Your task to perform on an android device: refresh tabs in the chrome app Image 0: 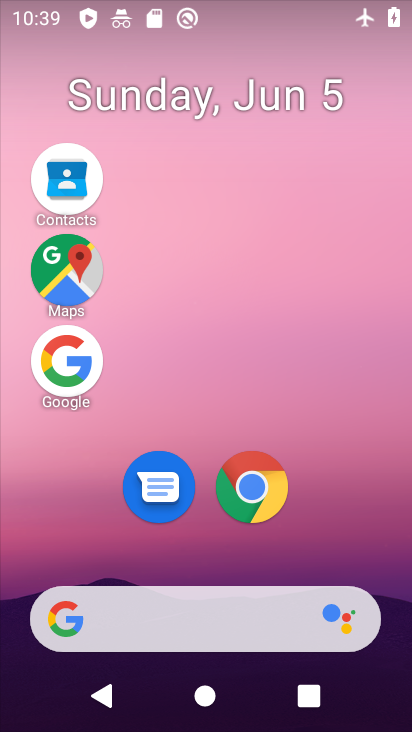
Step 0: drag from (208, 532) to (203, 7)
Your task to perform on an android device: refresh tabs in the chrome app Image 1: 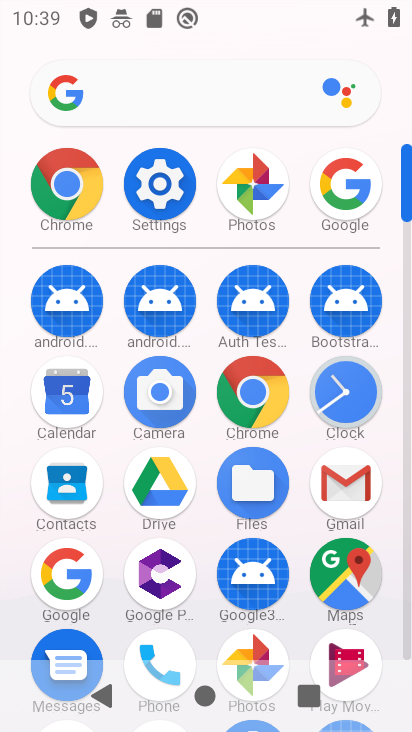
Step 1: click (56, 204)
Your task to perform on an android device: refresh tabs in the chrome app Image 2: 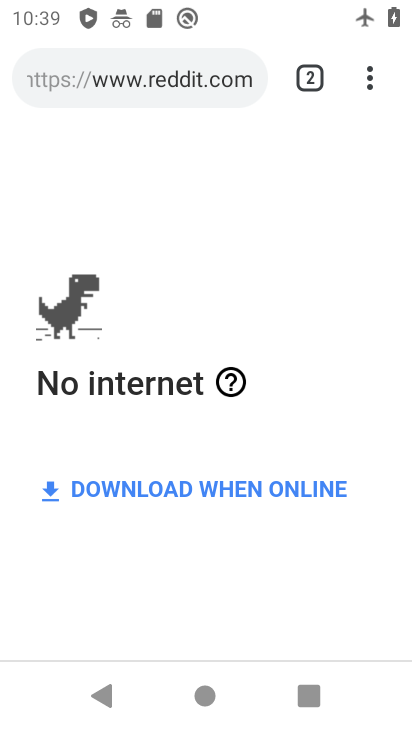
Step 2: click (370, 86)
Your task to perform on an android device: refresh tabs in the chrome app Image 3: 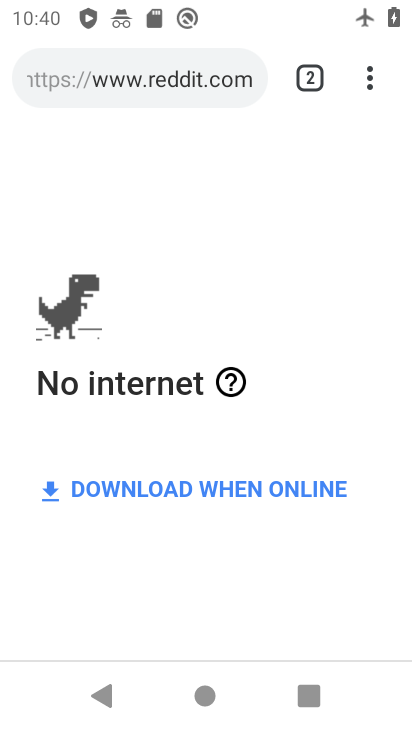
Step 3: click (367, 93)
Your task to perform on an android device: refresh tabs in the chrome app Image 4: 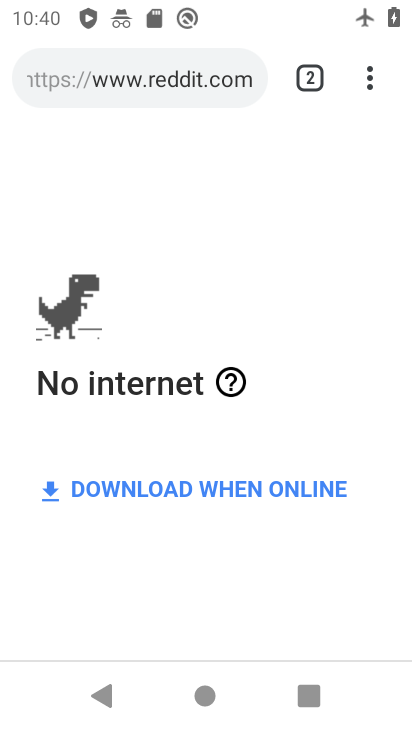
Step 4: click (376, 80)
Your task to perform on an android device: refresh tabs in the chrome app Image 5: 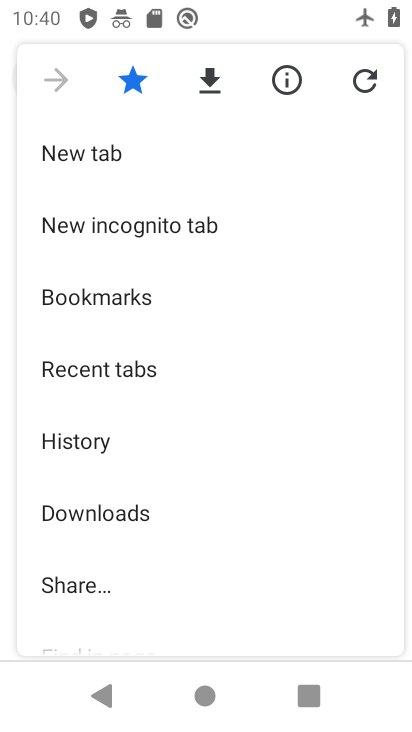
Step 5: click (372, 82)
Your task to perform on an android device: refresh tabs in the chrome app Image 6: 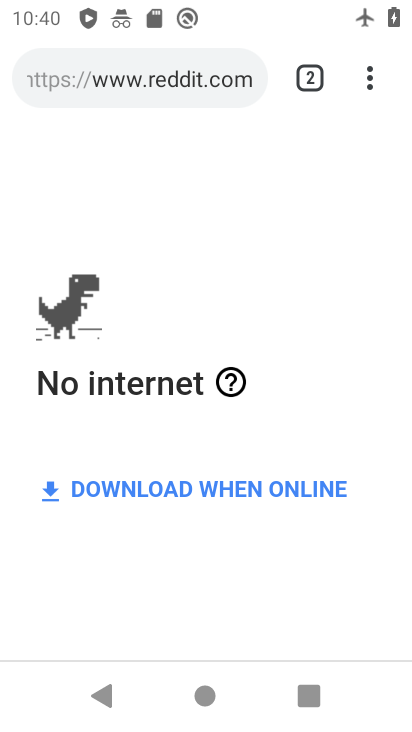
Step 6: task complete